Your task to perform on an android device: What's on my calendar tomorrow? Image 0: 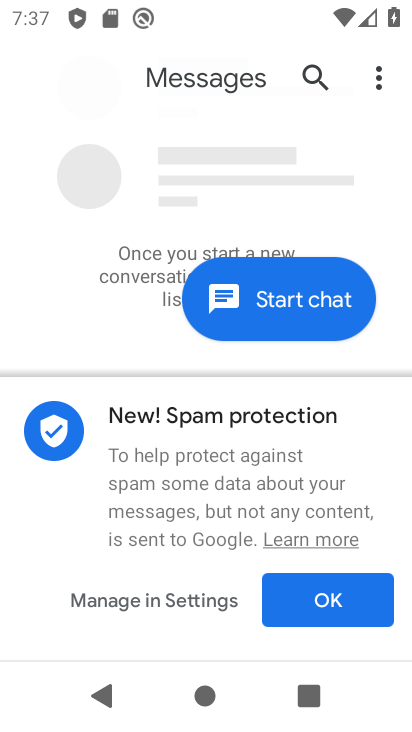
Step 0: press home button
Your task to perform on an android device: What's on my calendar tomorrow? Image 1: 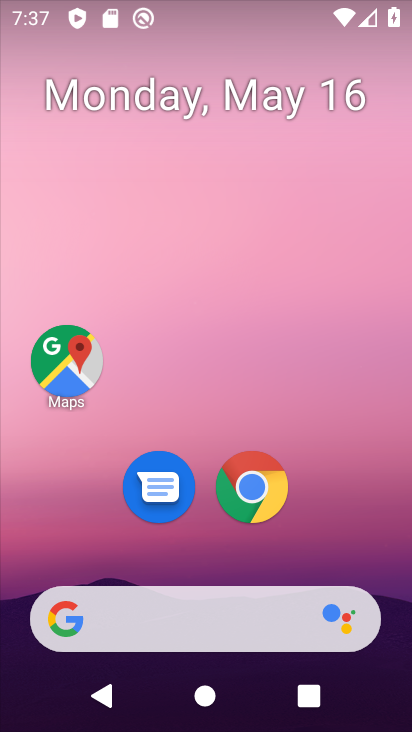
Step 1: drag from (306, 498) to (319, 128)
Your task to perform on an android device: What's on my calendar tomorrow? Image 2: 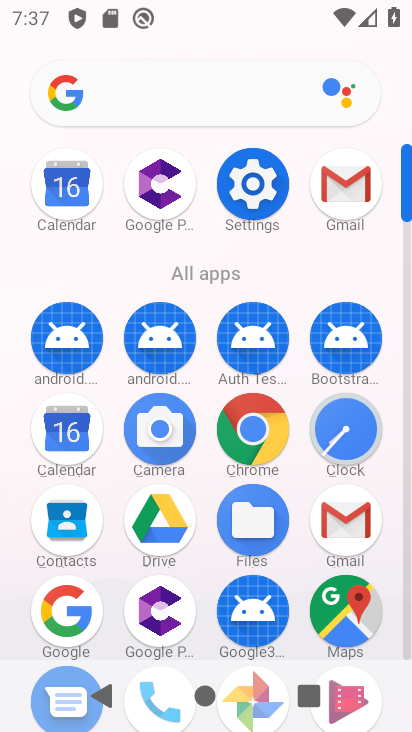
Step 2: click (65, 192)
Your task to perform on an android device: What's on my calendar tomorrow? Image 3: 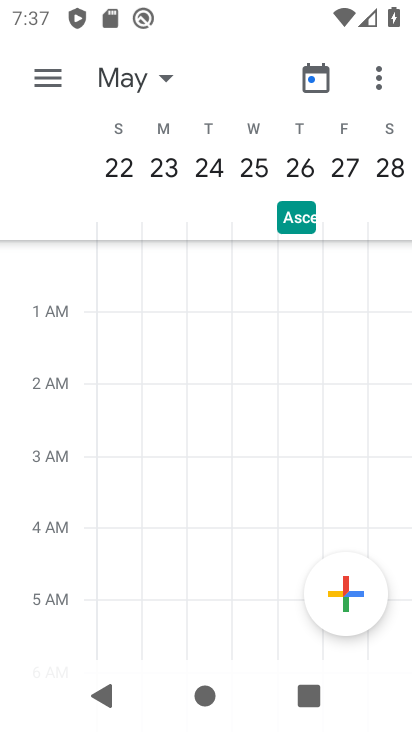
Step 3: drag from (122, 352) to (410, 357)
Your task to perform on an android device: What's on my calendar tomorrow? Image 4: 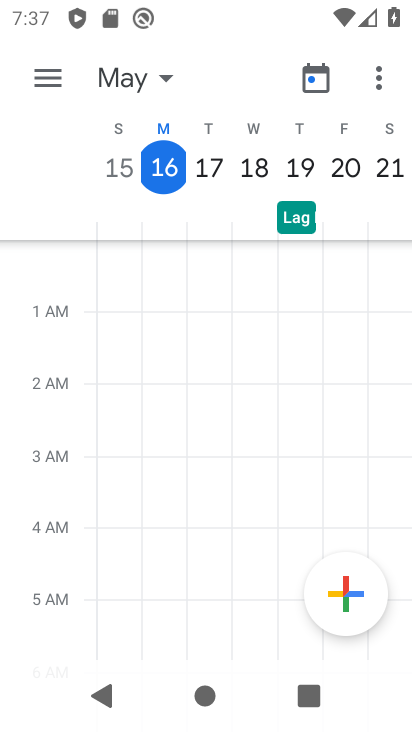
Step 4: click (211, 158)
Your task to perform on an android device: What's on my calendar tomorrow? Image 5: 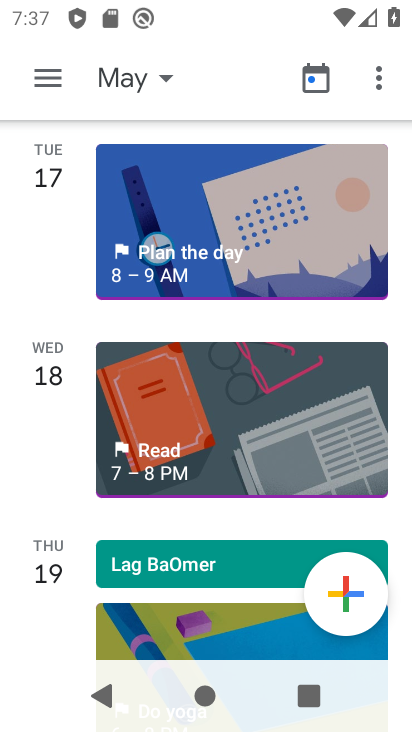
Step 5: task complete